Your task to perform on an android device: Go to eBay Image 0: 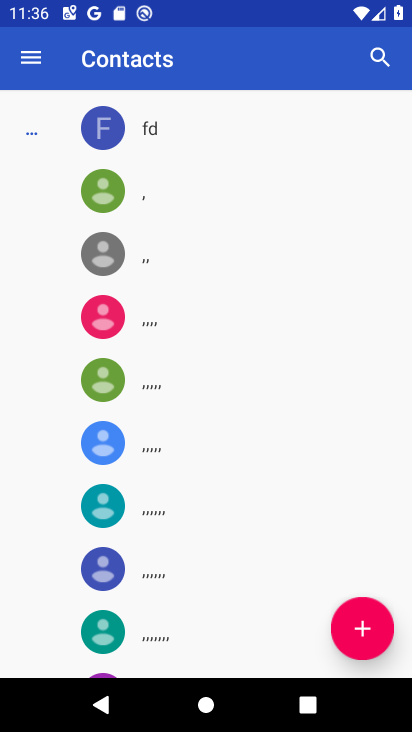
Step 0: press home button
Your task to perform on an android device: Go to eBay Image 1: 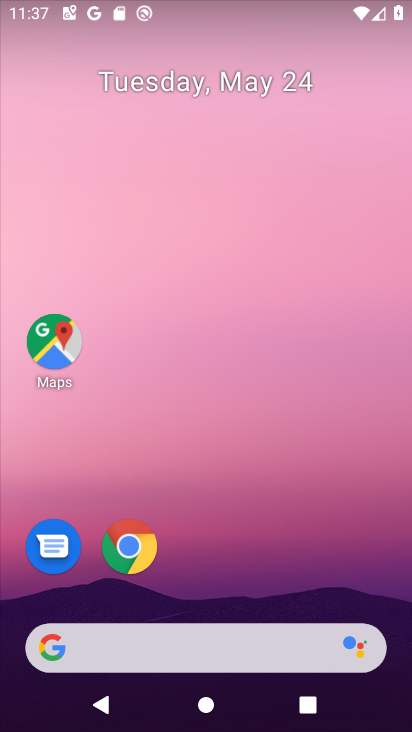
Step 1: click (136, 551)
Your task to perform on an android device: Go to eBay Image 2: 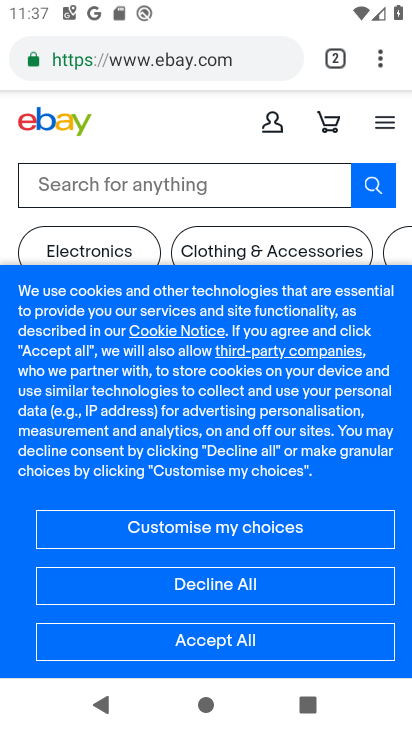
Step 2: drag from (125, 218) to (130, 174)
Your task to perform on an android device: Go to eBay Image 3: 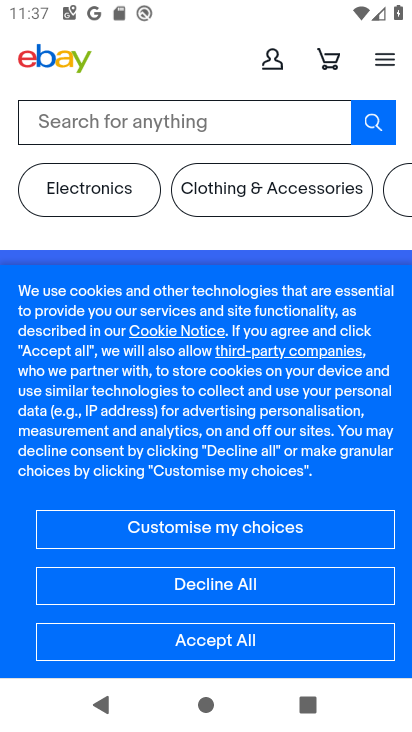
Step 3: click (90, 198)
Your task to perform on an android device: Go to eBay Image 4: 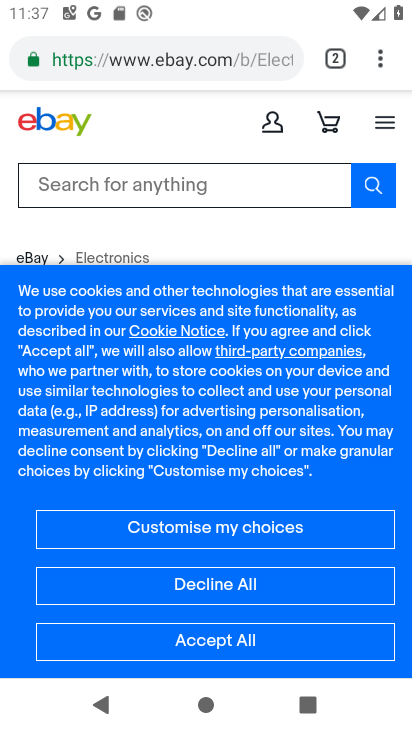
Step 4: task complete